Your task to perform on an android device: toggle notification dots Image 0: 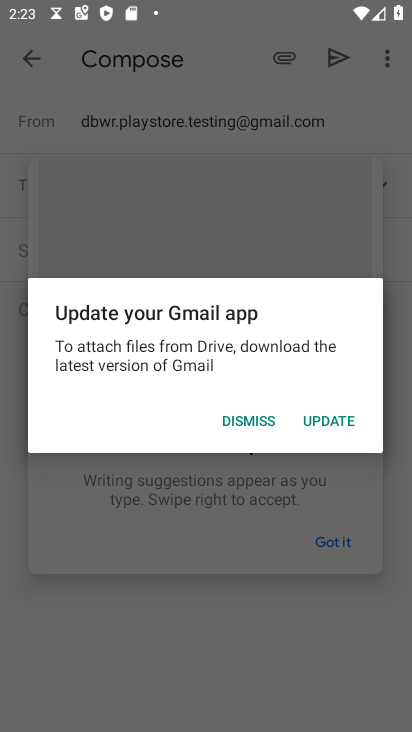
Step 0: press home button
Your task to perform on an android device: toggle notification dots Image 1: 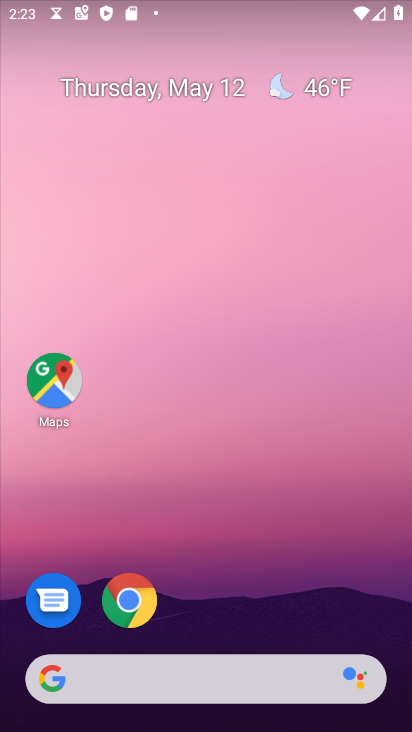
Step 1: drag from (200, 636) to (279, 64)
Your task to perform on an android device: toggle notification dots Image 2: 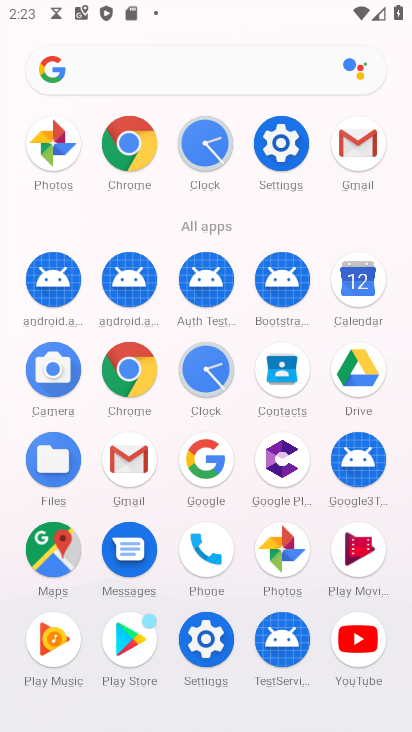
Step 2: click (224, 641)
Your task to perform on an android device: toggle notification dots Image 3: 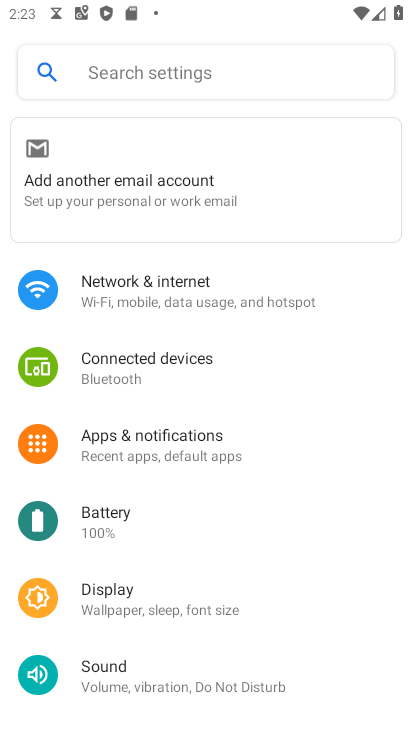
Step 3: click (190, 445)
Your task to perform on an android device: toggle notification dots Image 4: 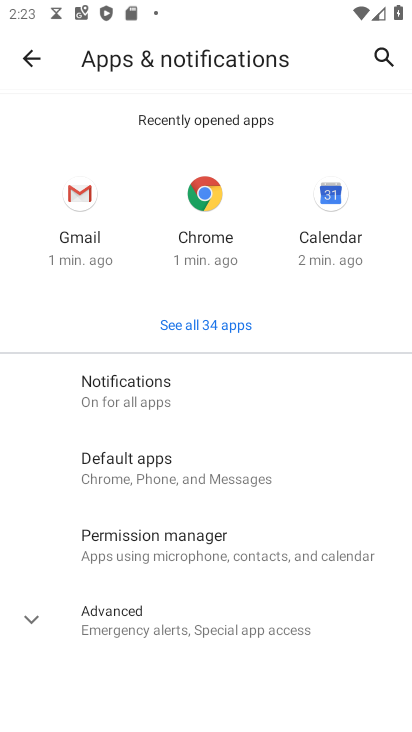
Step 4: click (159, 400)
Your task to perform on an android device: toggle notification dots Image 5: 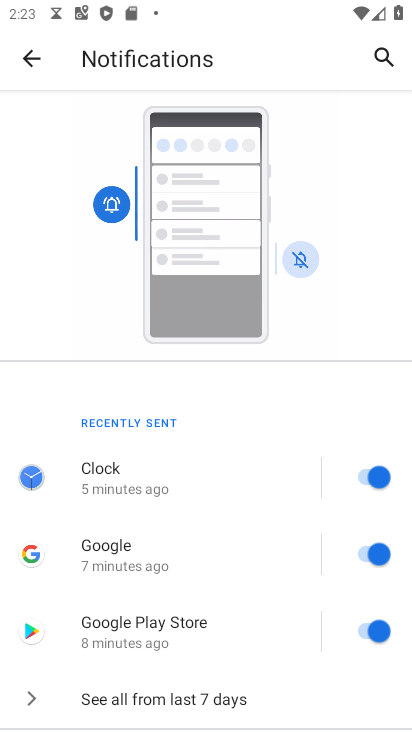
Step 5: drag from (169, 569) to (232, 156)
Your task to perform on an android device: toggle notification dots Image 6: 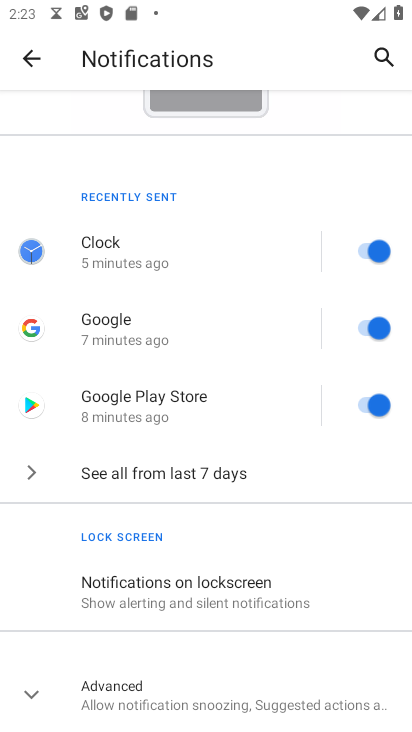
Step 6: drag from (171, 517) to (204, 246)
Your task to perform on an android device: toggle notification dots Image 7: 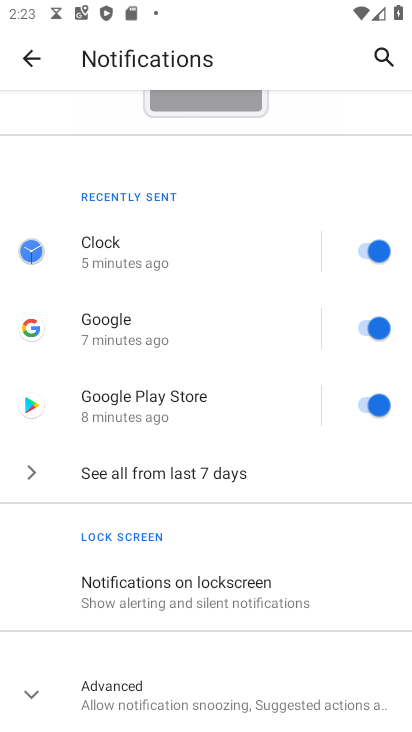
Step 7: click (117, 688)
Your task to perform on an android device: toggle notification dots Image 8: 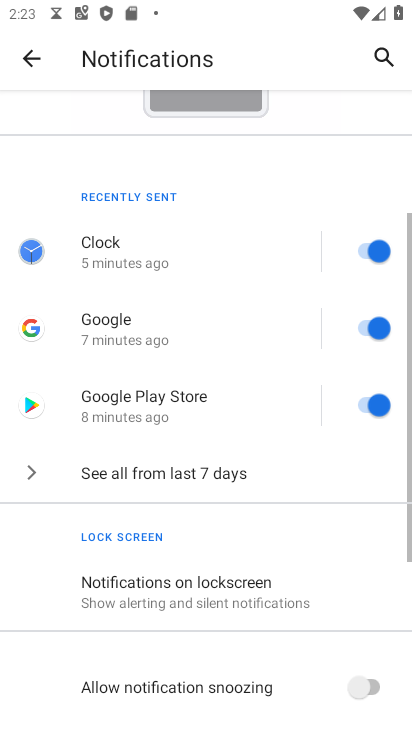
Step 8: drag from (119, 675) to (182, 253)
Your task to perform on an android device: toggle notification dots Image 9: 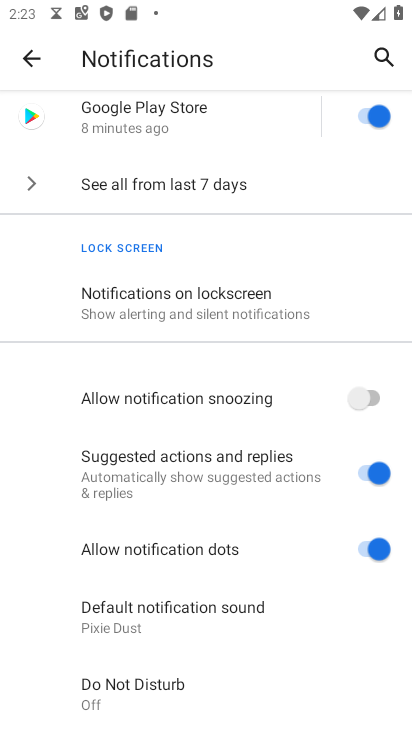
Step 9: click (360, 549)
Your task to perform on an android device: toggle notification dots Image 10: 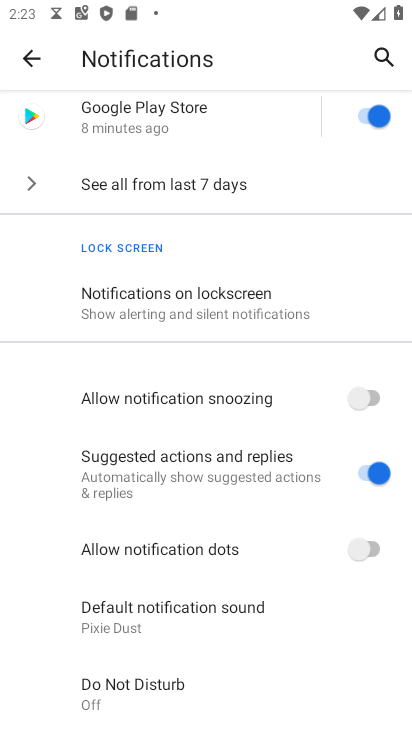
Step 10: task complete